Your task to perform on an android device: turn notification dots off Image 0: 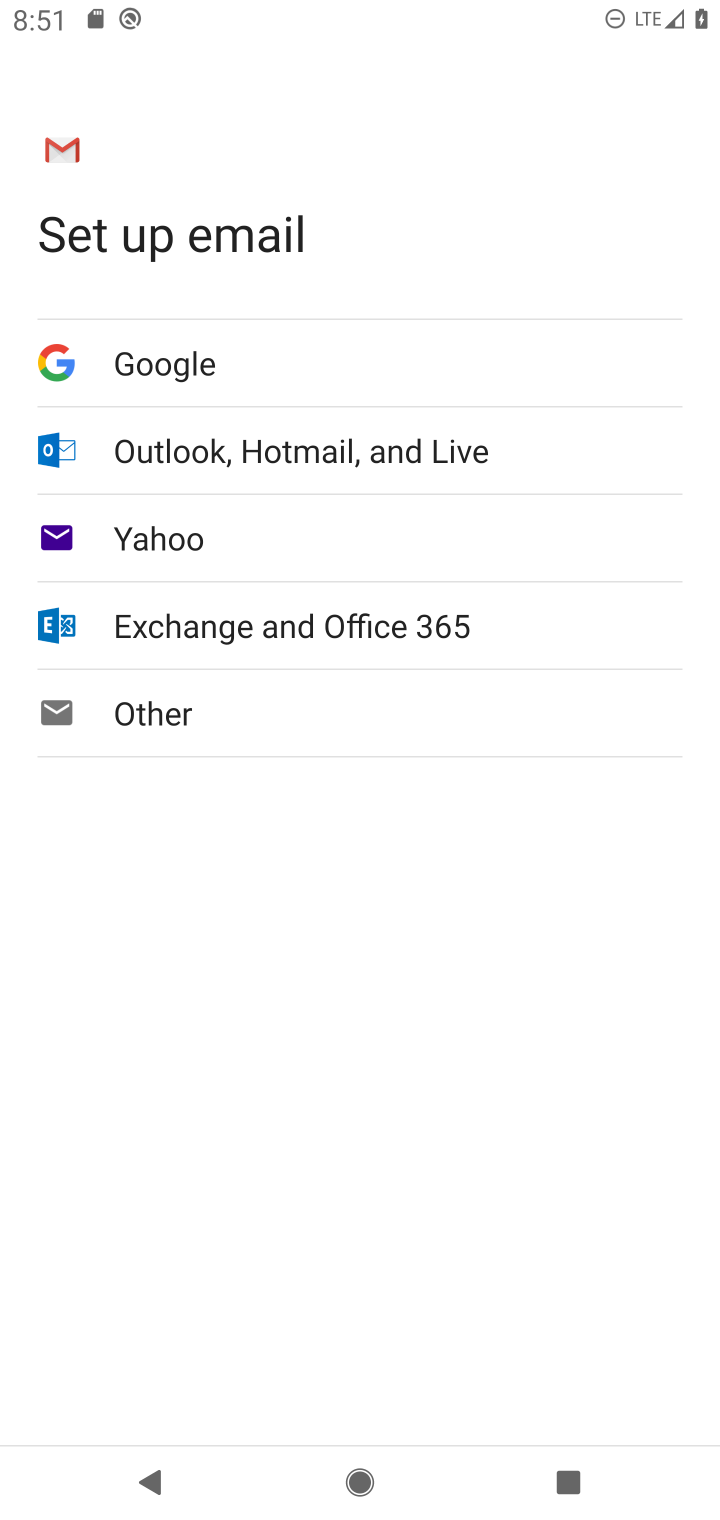
Step 0: press home button
Your task to perform on an android device: turn notification dots off Image 1: 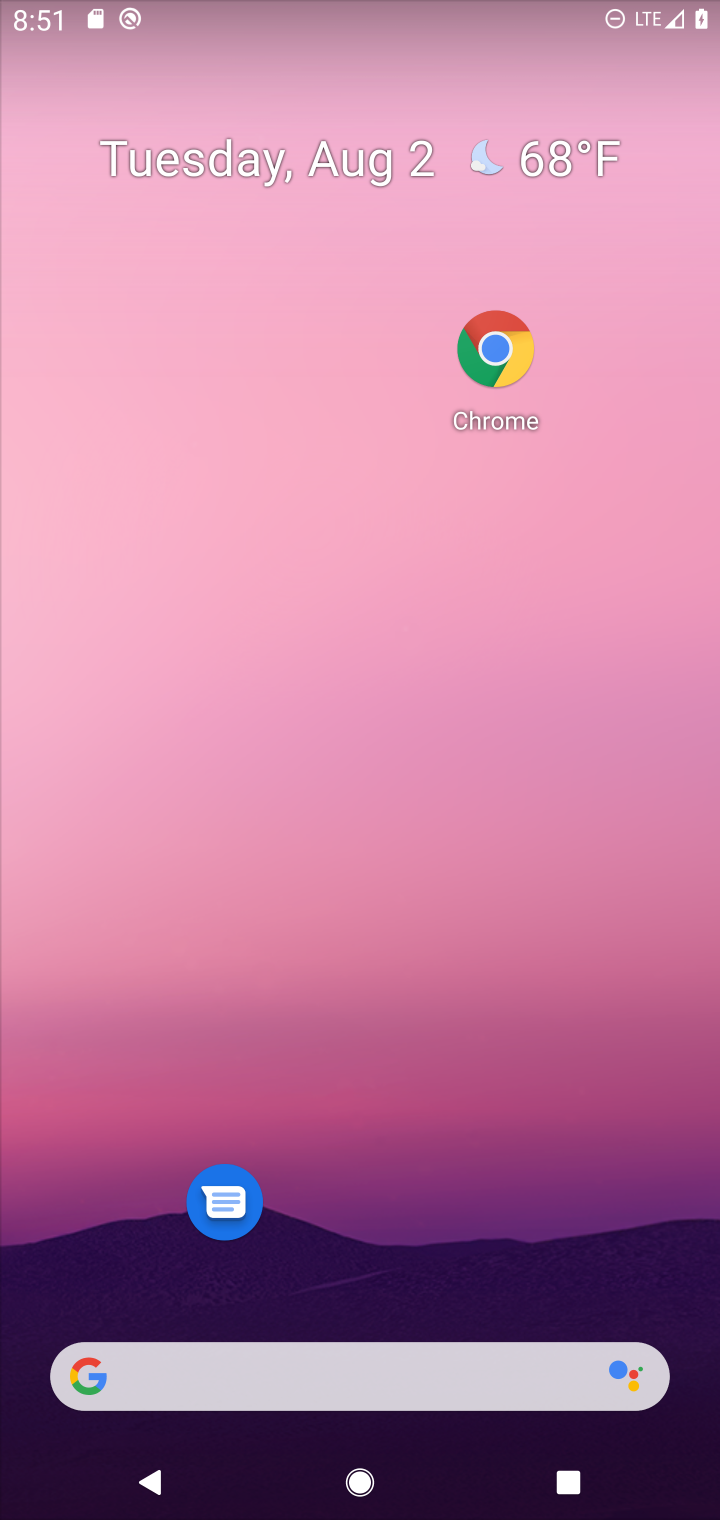
Step 1: drag from (341, 1219) to (332, 49)
Your task to perform on an android device: turn notification dots off Image 2: 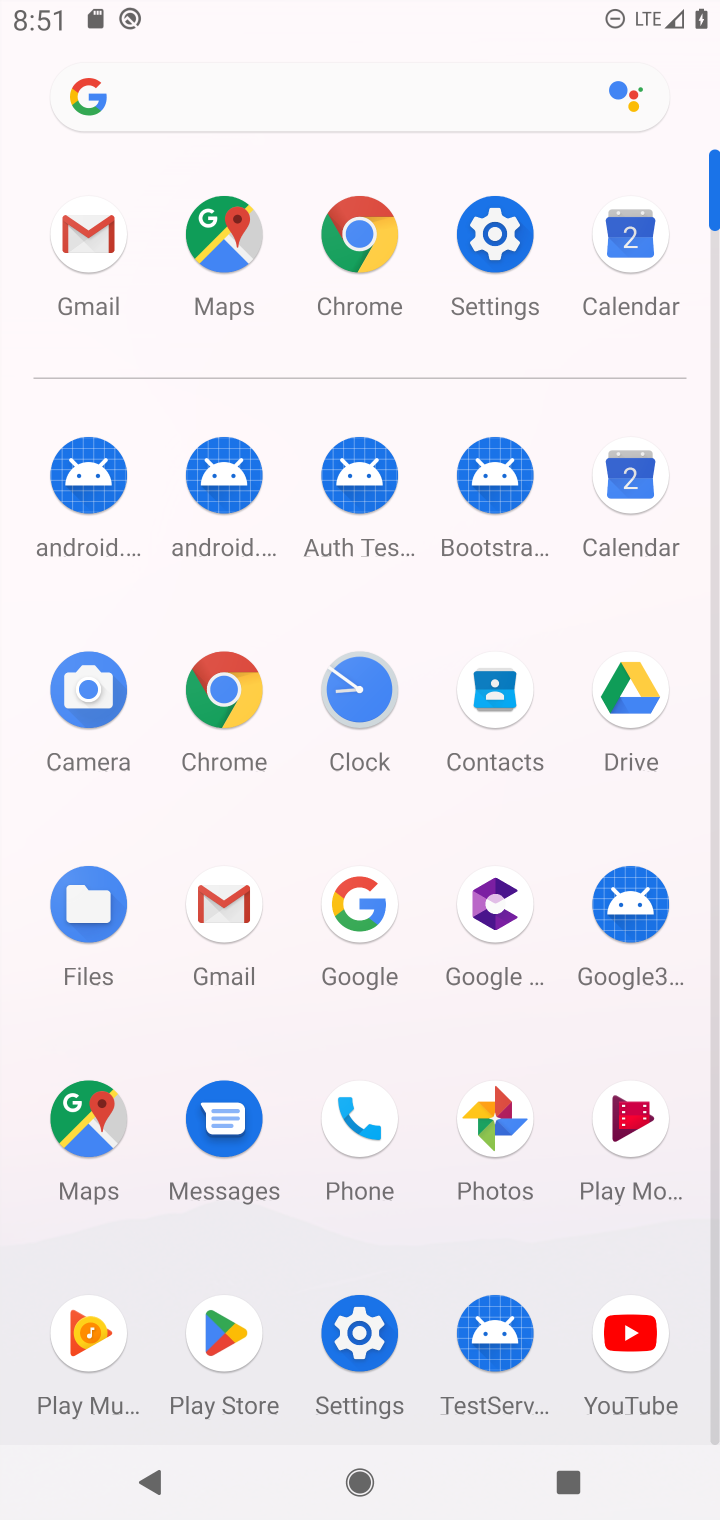
Step 2: click (493, 236)
Your task to perform on an android device: turn notification dots off Image 3: 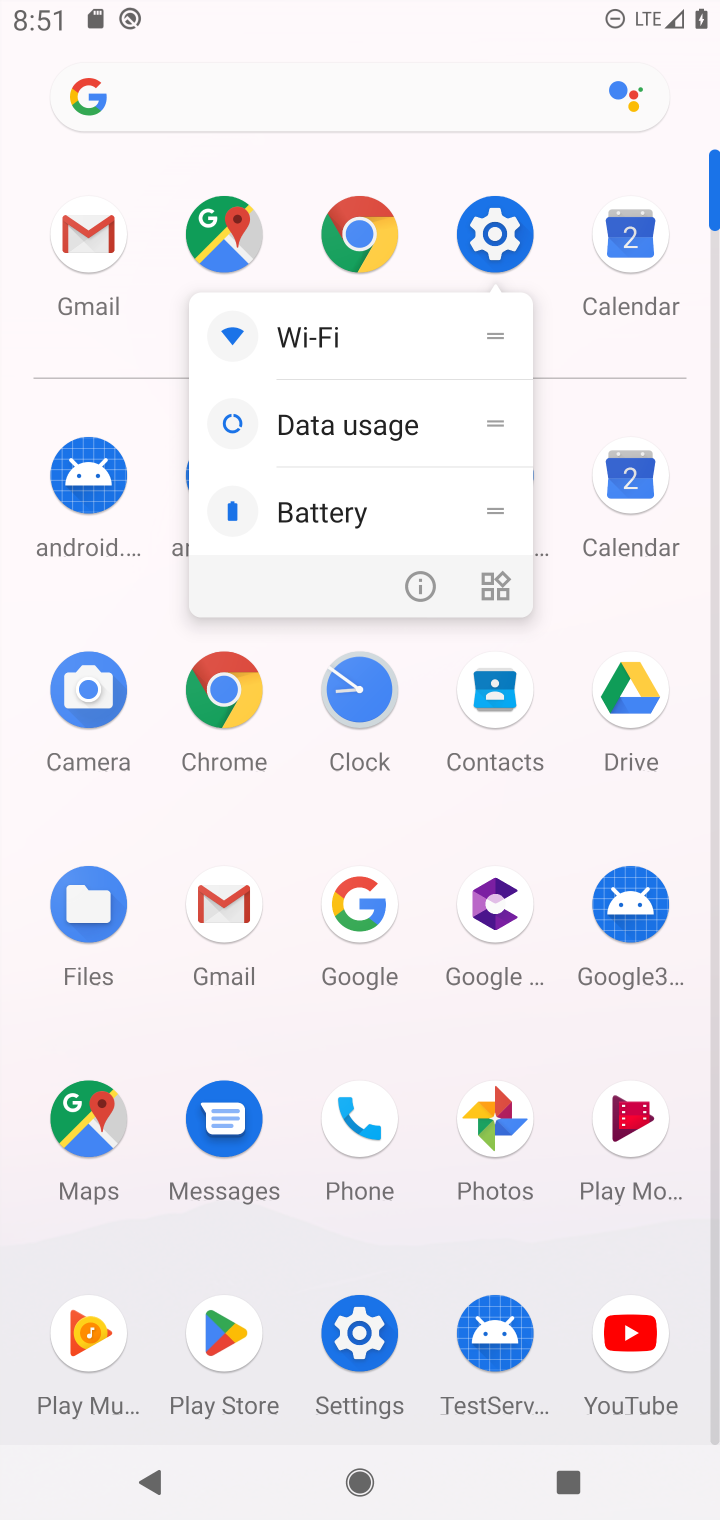
Step 3: click (493, 236)
Your task to perform on an android device: turn notification dots off Image 4: 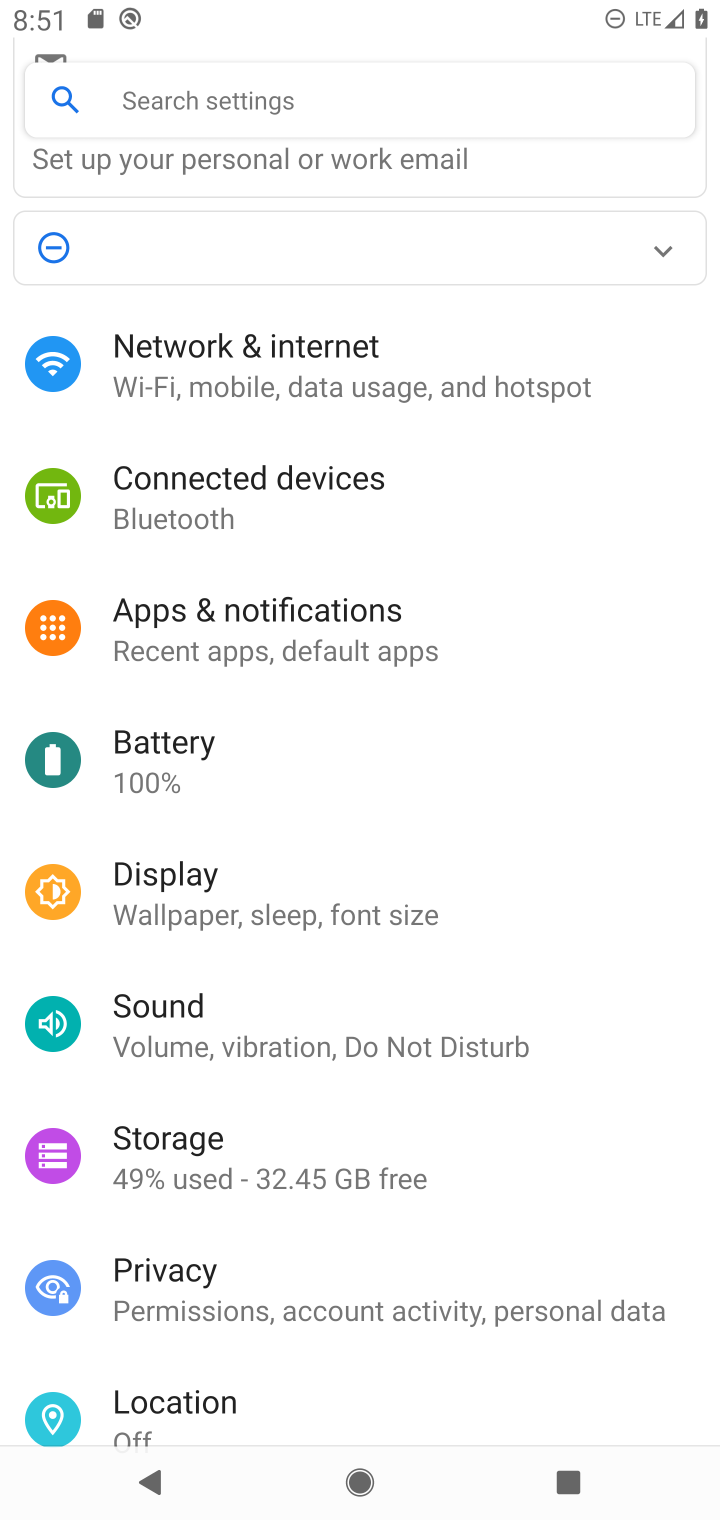
Step 4: click (304, 615)
Your task to perform on an android device: turn notification dots off Image 5: 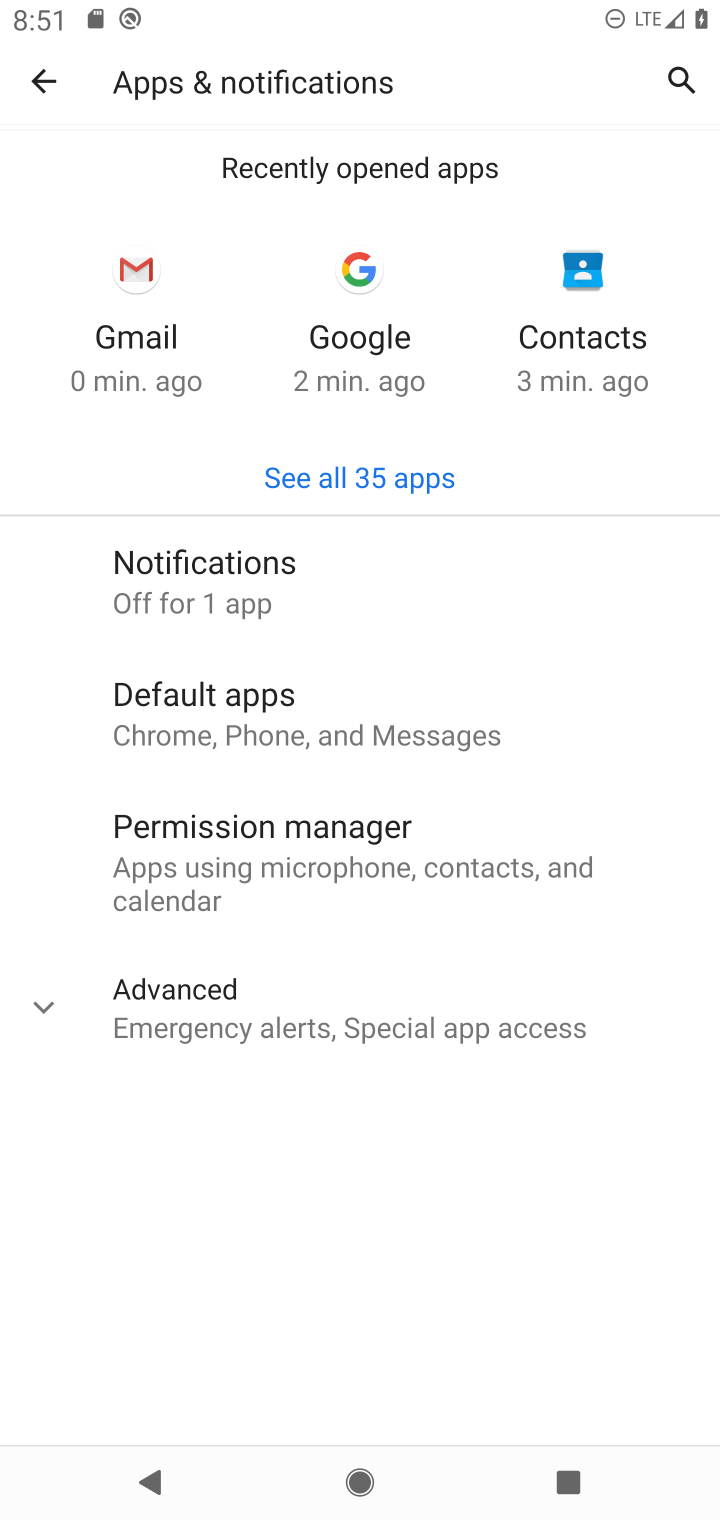
Step 5: click (200, 589)
Your task to perform on an android device: turn notification dots off Image 6: 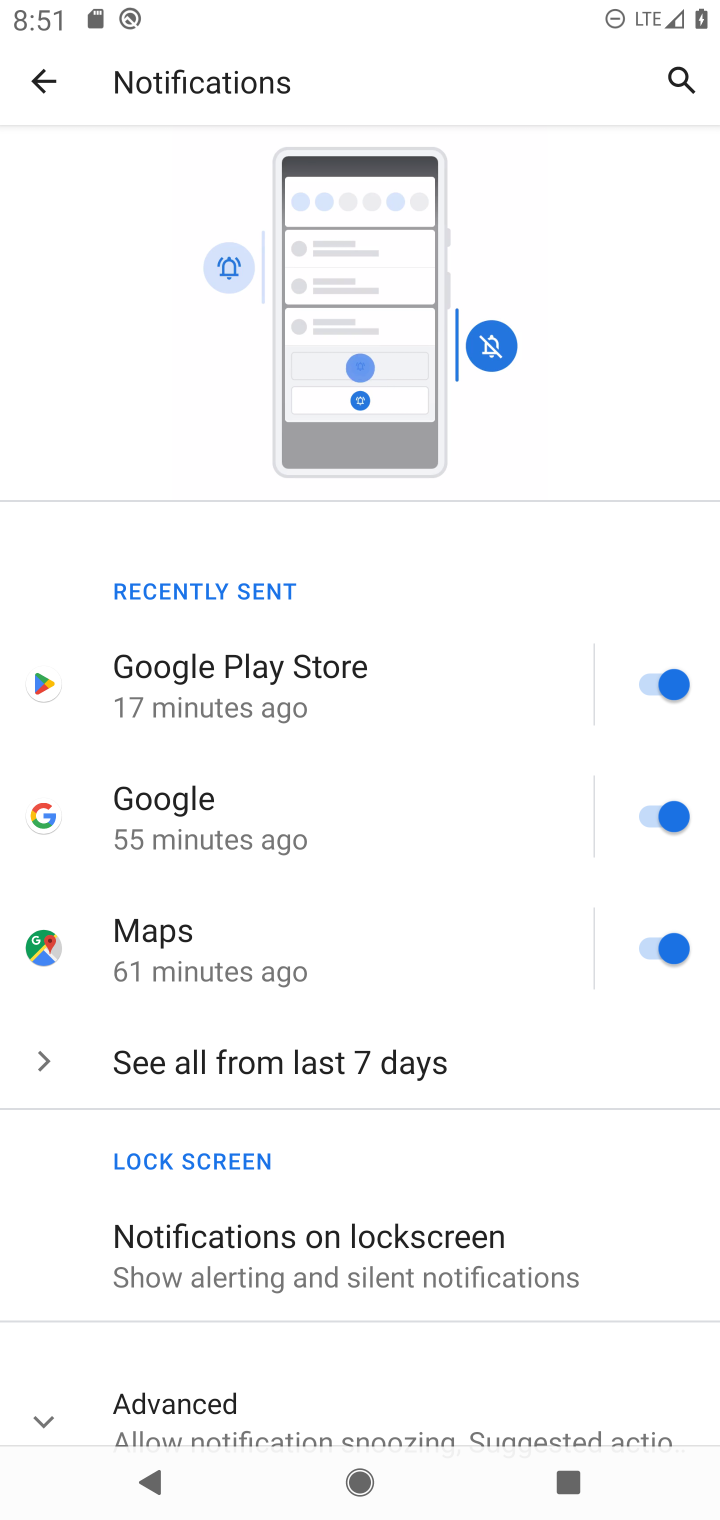
Step 6: drag from (447, 941) to (441, 750)
Your task to perform on an android device: turn notification dots off Image 7: 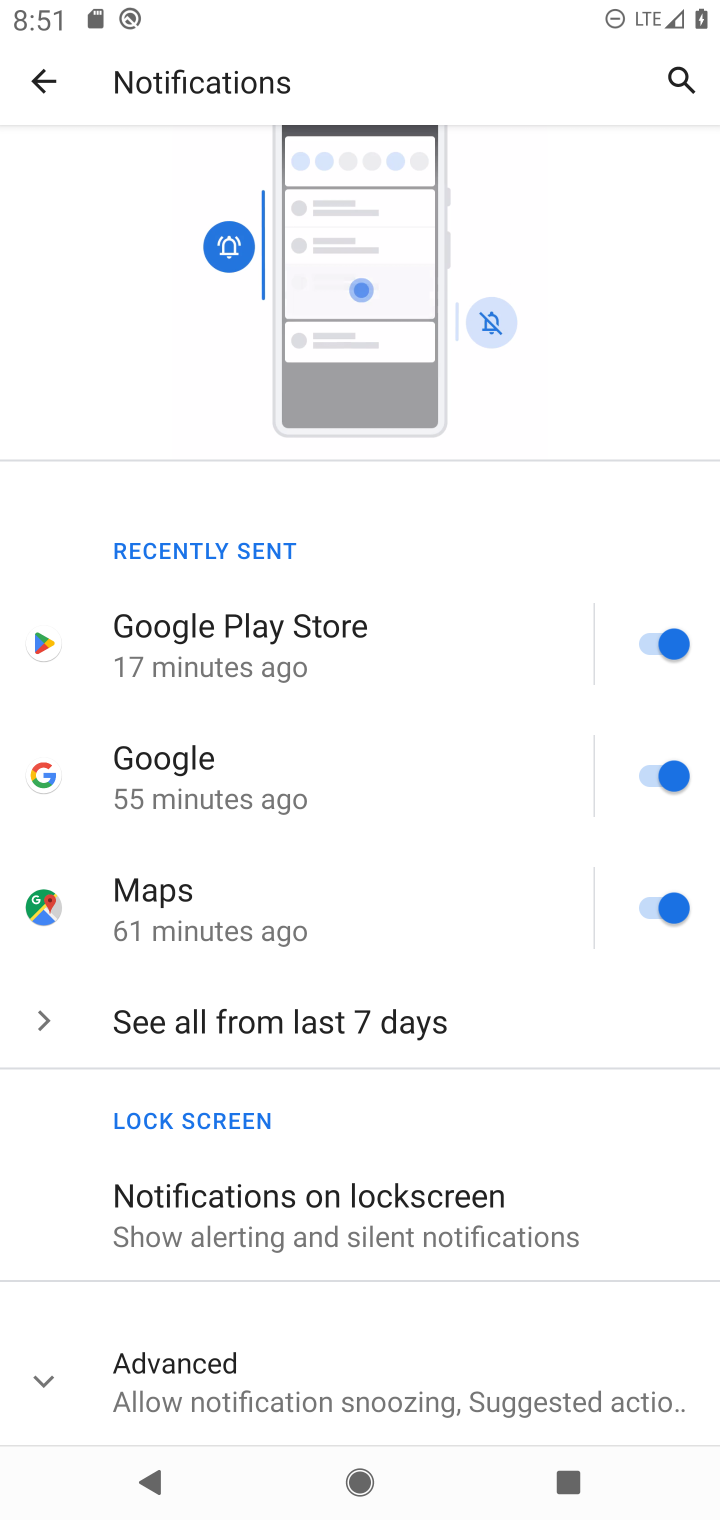
Step 7: click (42, 1387)
Your task to perform on an android device: turn notification dots off Image 8: 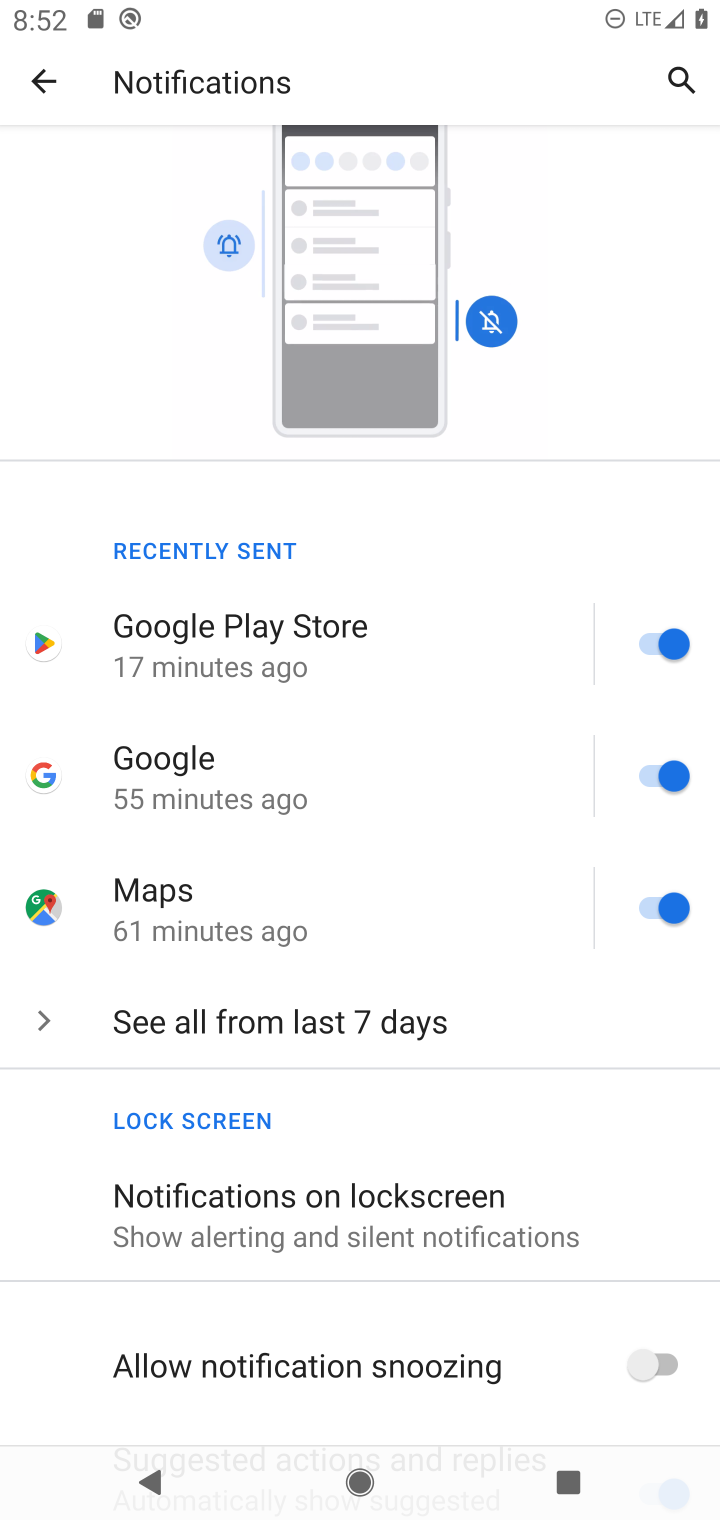
Step 8: drag from (329, 1272) to (346, 678)
Your task to perform on an android device: turn notification dots off Image 9: 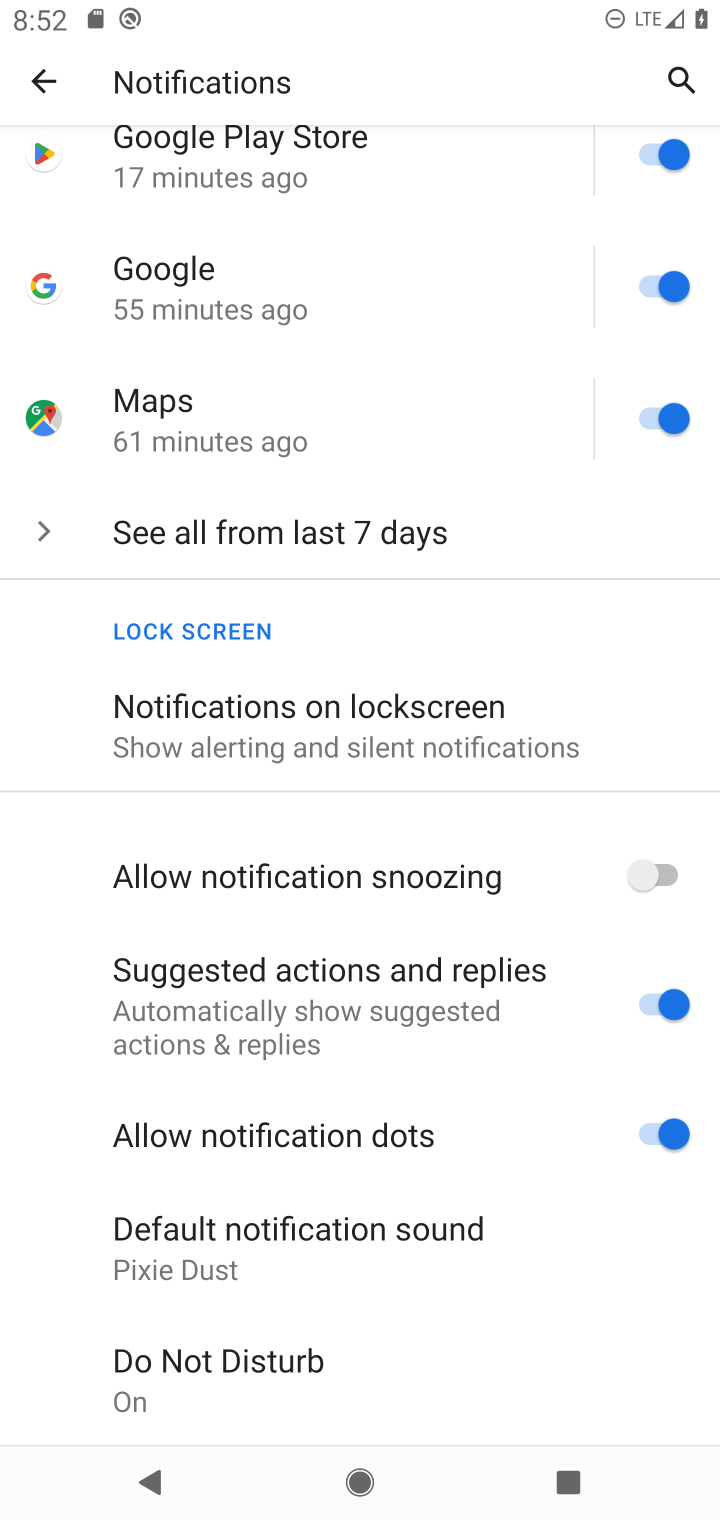
Step 9: click (668, 1142)
Your task to perform on an android device: turn notification dots off Image 10: 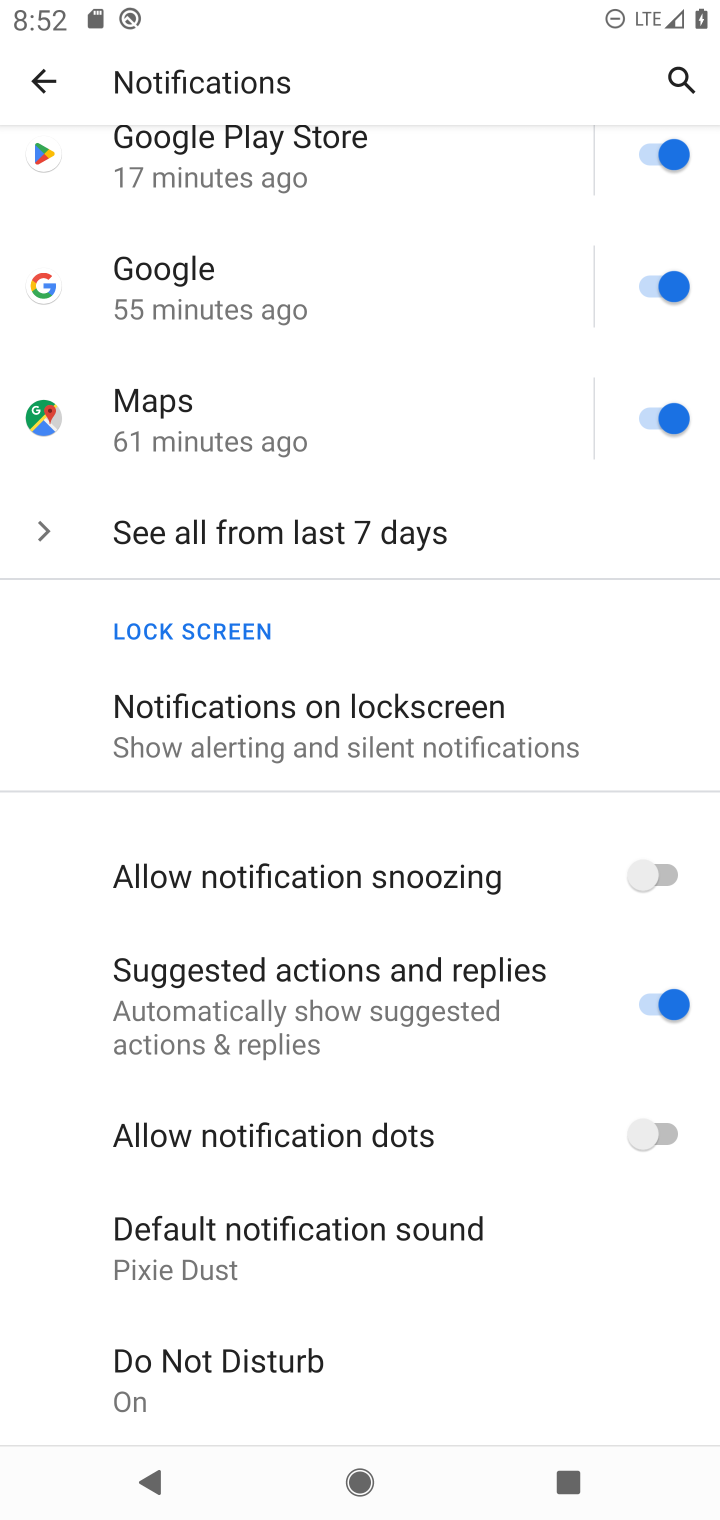
Step 10: task complete